Your task to perform on an android device: turn on notifications settings in the gmail app Image 0: 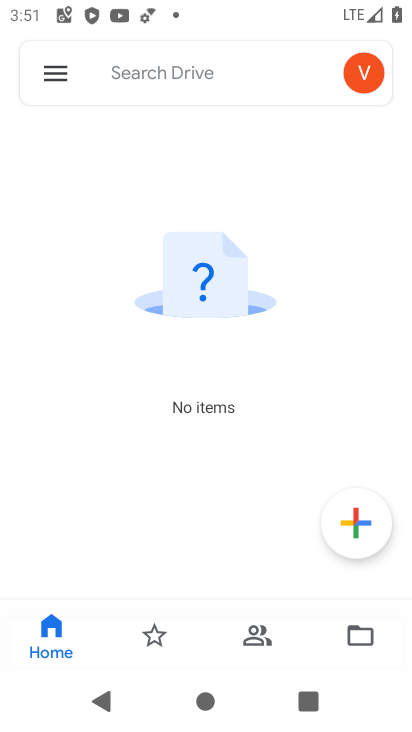
Step 0: press home button
Your task to perform on an android device: turn on notifications settings in the gmail app Image 1: 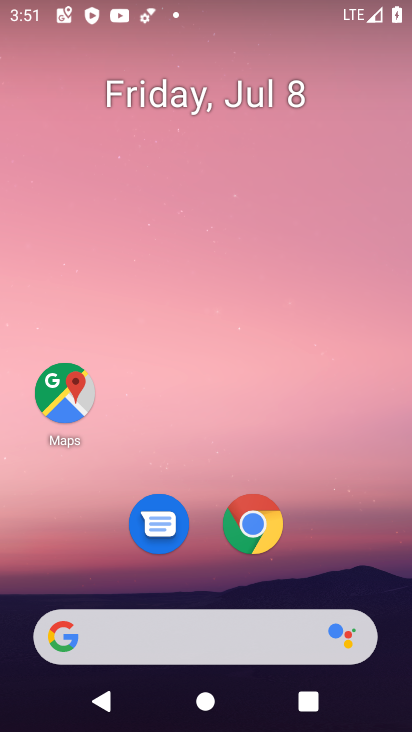
Step 1: drag from (316, 558) to (306, 6)
Your task to perform on an android device: turn on notifications settings in the gmail app Image 2: 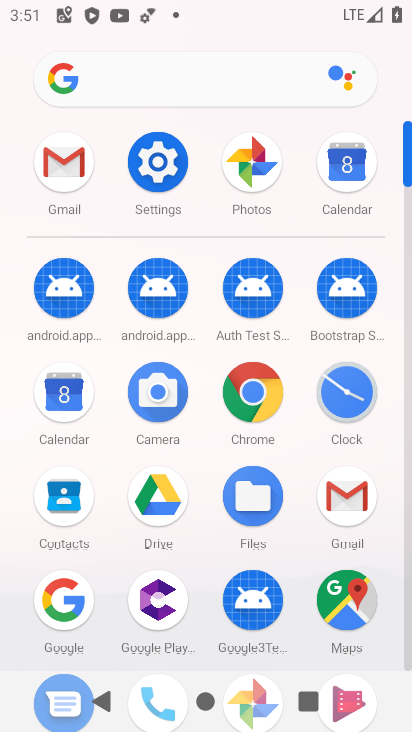
Step 2: click (355, 496)
Your task to perform on an android device: turn on notifications settings in the gmail app Image 3: 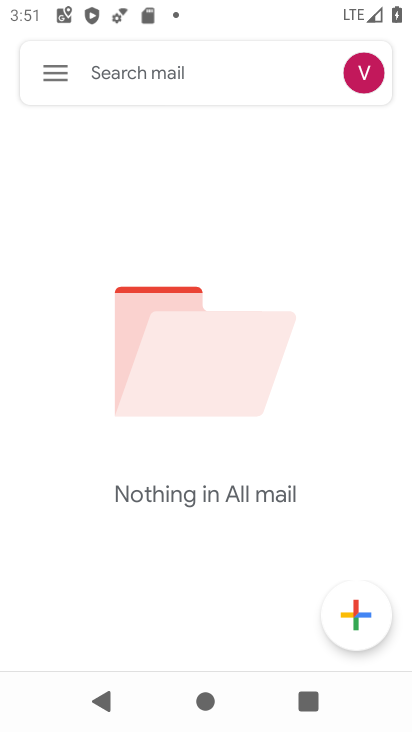
Step 3: click (52, 68)
Your task to perform on an android device: turn on notifications settings in the gmail app Image 4: 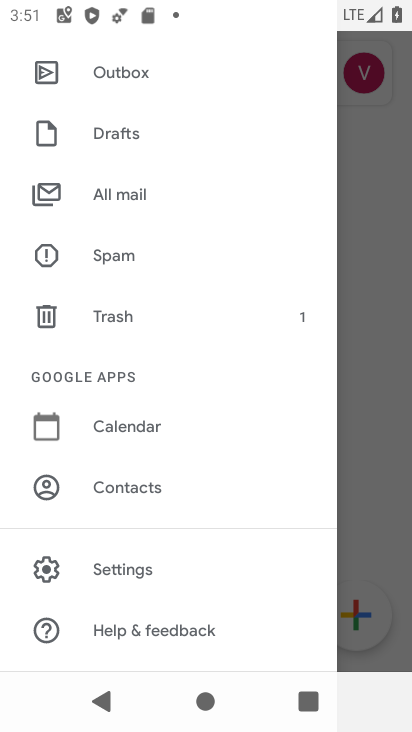
Step 4: click (122, 569)
Your task to perform on an android device: turn on notifications settings in the gmail app Image 5: 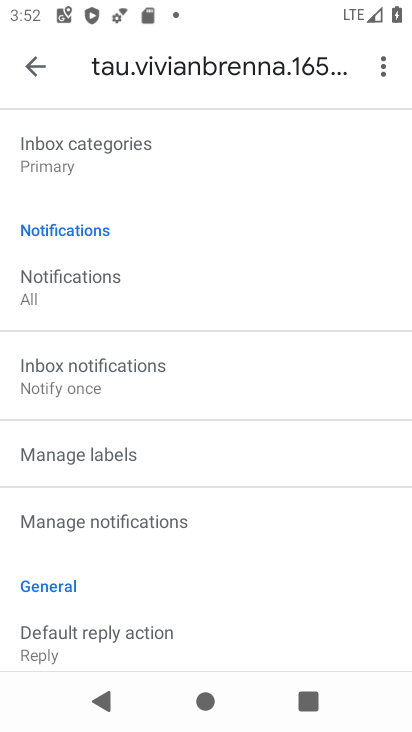
Step 5: click (205, 524)
Your task to perform on an android device: turn on notifications settings in the gmail app Image 6: 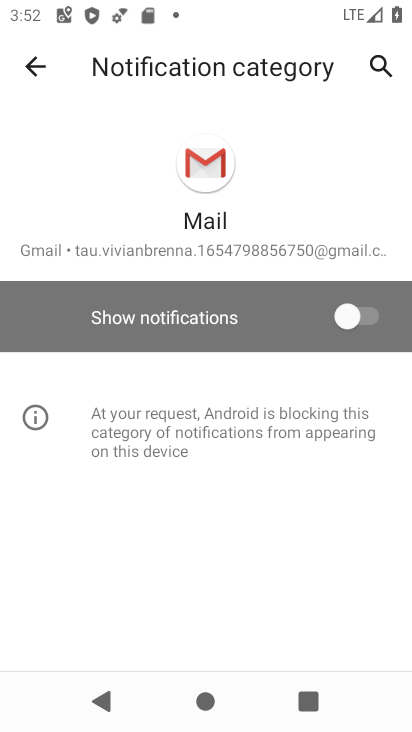
Step 6: click (369, 316)
Your task to perform on an android device: turn on notifications settings in the gmail app Image 7: 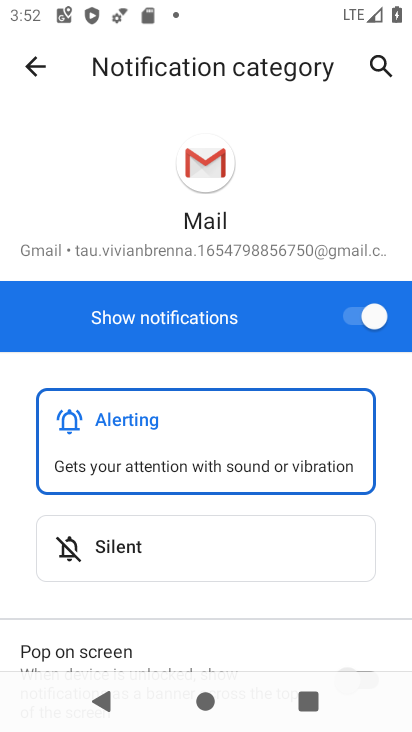
Step 7: task complete